Your task to perform on an android device: Clear the cart on walmart. Add usb-c to the cart on walmart, then select checkout. Image 0: 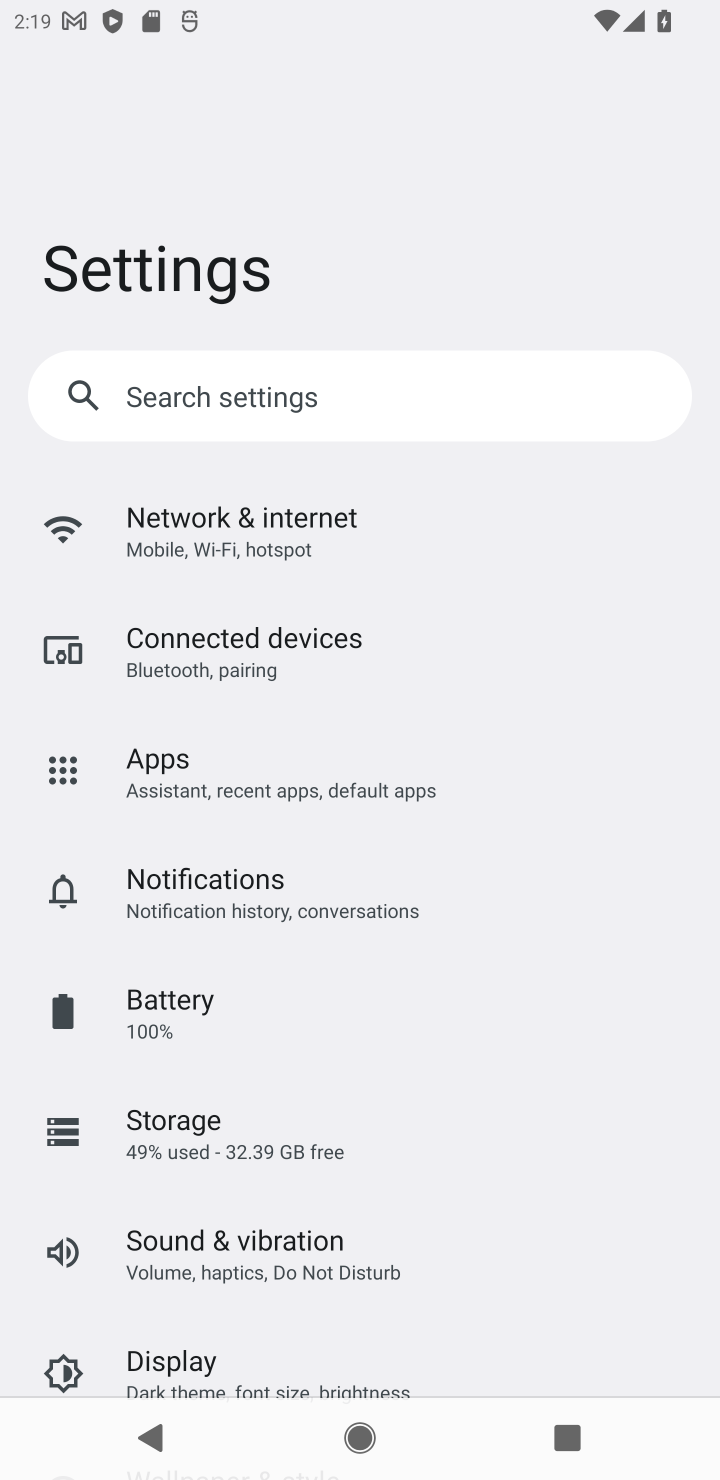
Step 0: press home button
Your task to perform on an android device: Clear the cart on walmart. Add usb-c to the cart on walmart, then select checkout. Image 1: 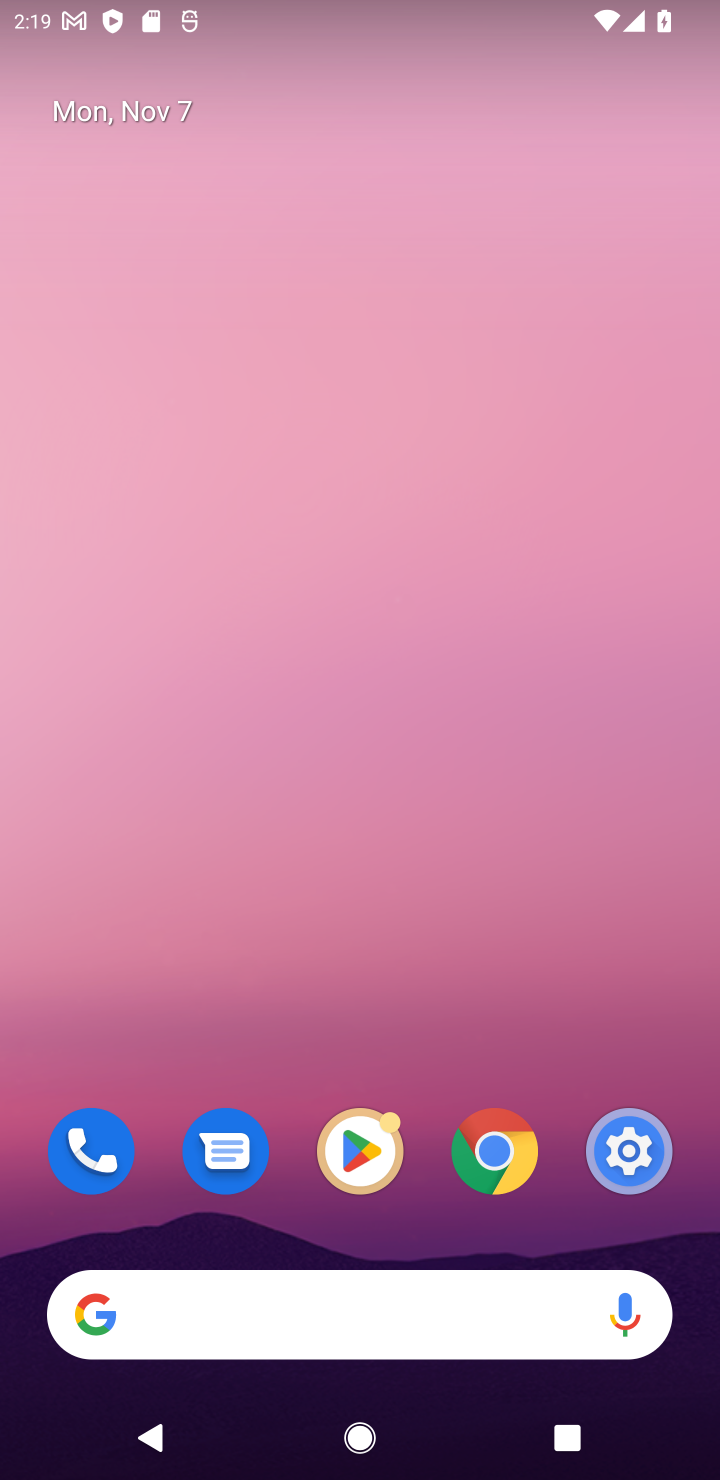
Step 1: click (281, 1317)
Your task to perform on an android device: Clear the cart on walmart. Add usb-c to the cart on walmart, then select checkout. Image 2: 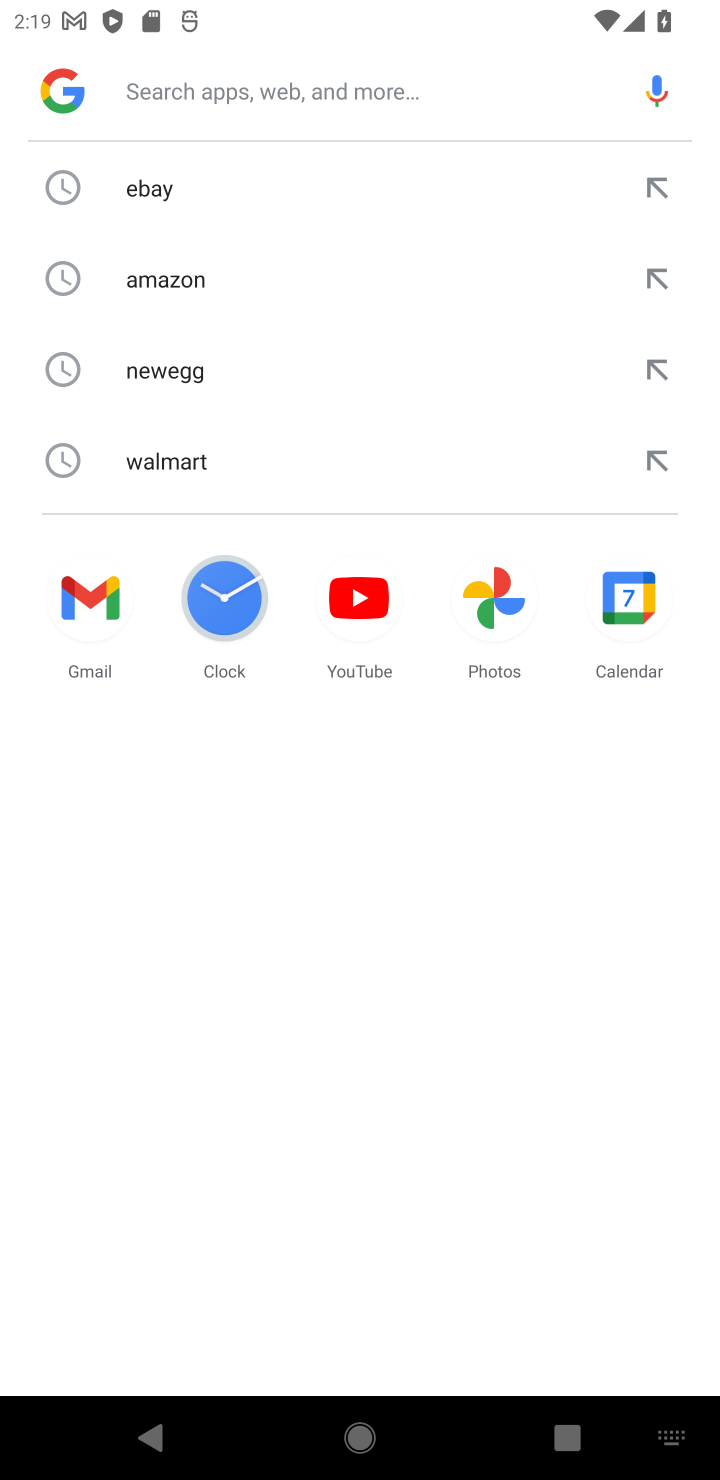
Step 2: click (168, 460)
Your task to perform on an android device: Clear the cart on walmart. Add usb-c to the cart on walmart, then select checkout. Image 3: 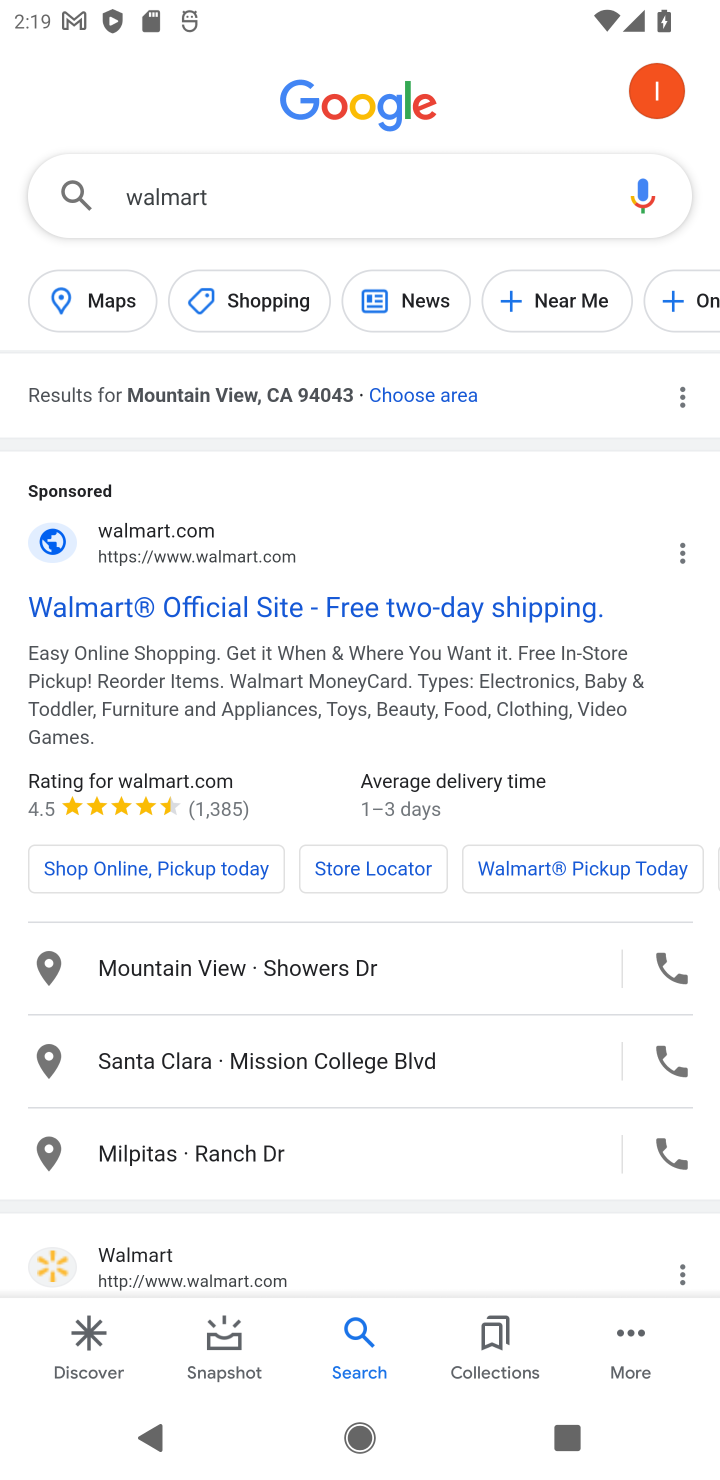
Step 3: drag from (359, 1219) to (361, 779)
Your task to perform on an android device: Clear the cart on walmart. Add usb-c to the cart on walmart, then select checkout. Image 4: 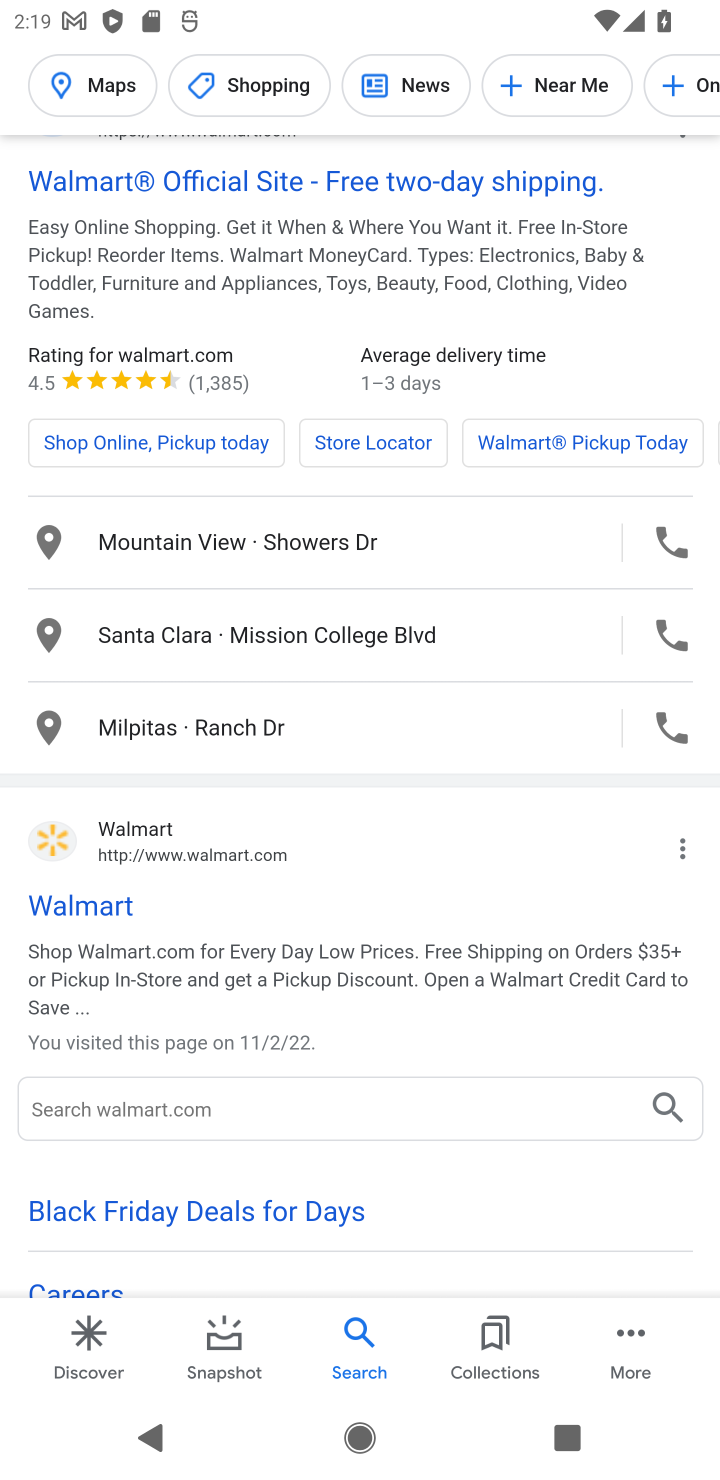
Step 4: click (103, 908)
Your task to perform on an android device: Clear the cart on walmart. Add usb-c to the cart on walmart, then select checkout. Image 5: 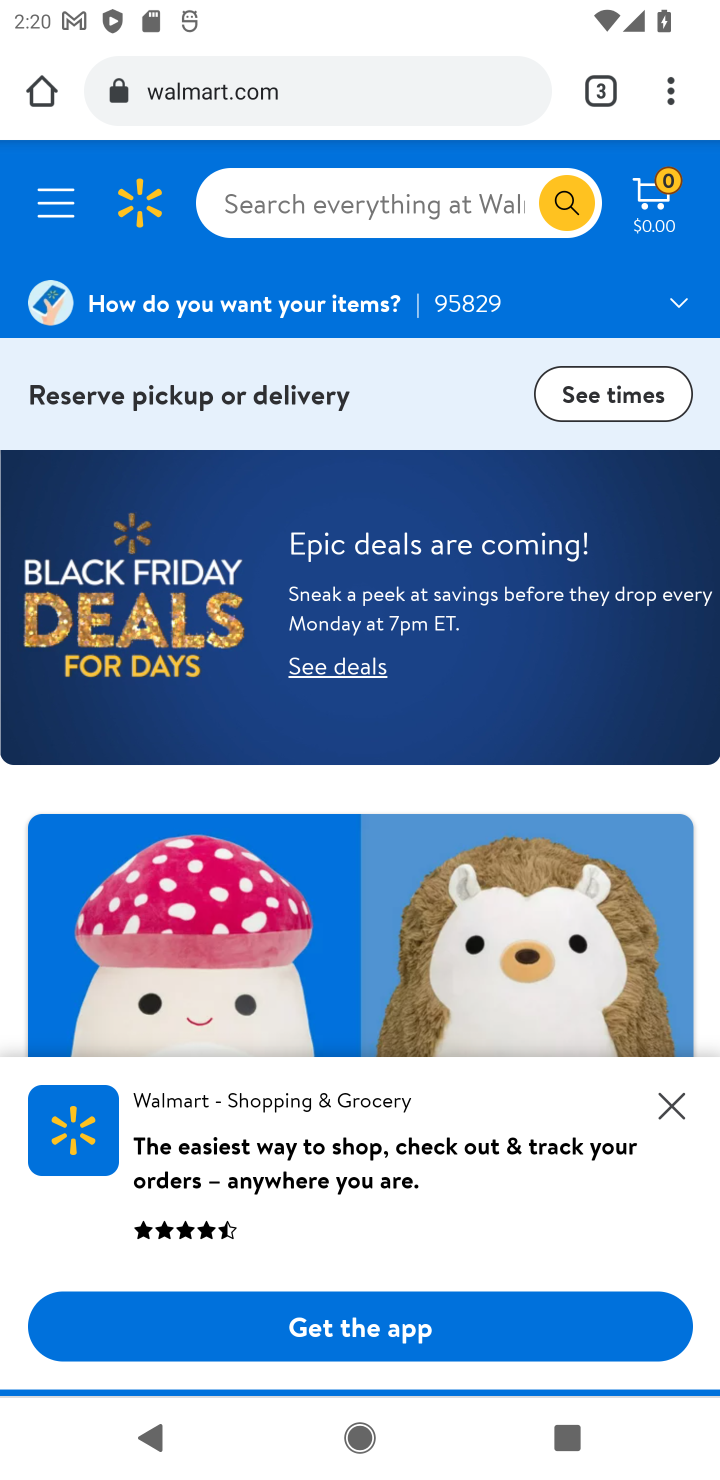
Step 5: click (358, 192)
Your task to perform on an android device: Clear the cart on walmart. Add usb-c to the cart on walmart, then select checkout. Image 6: 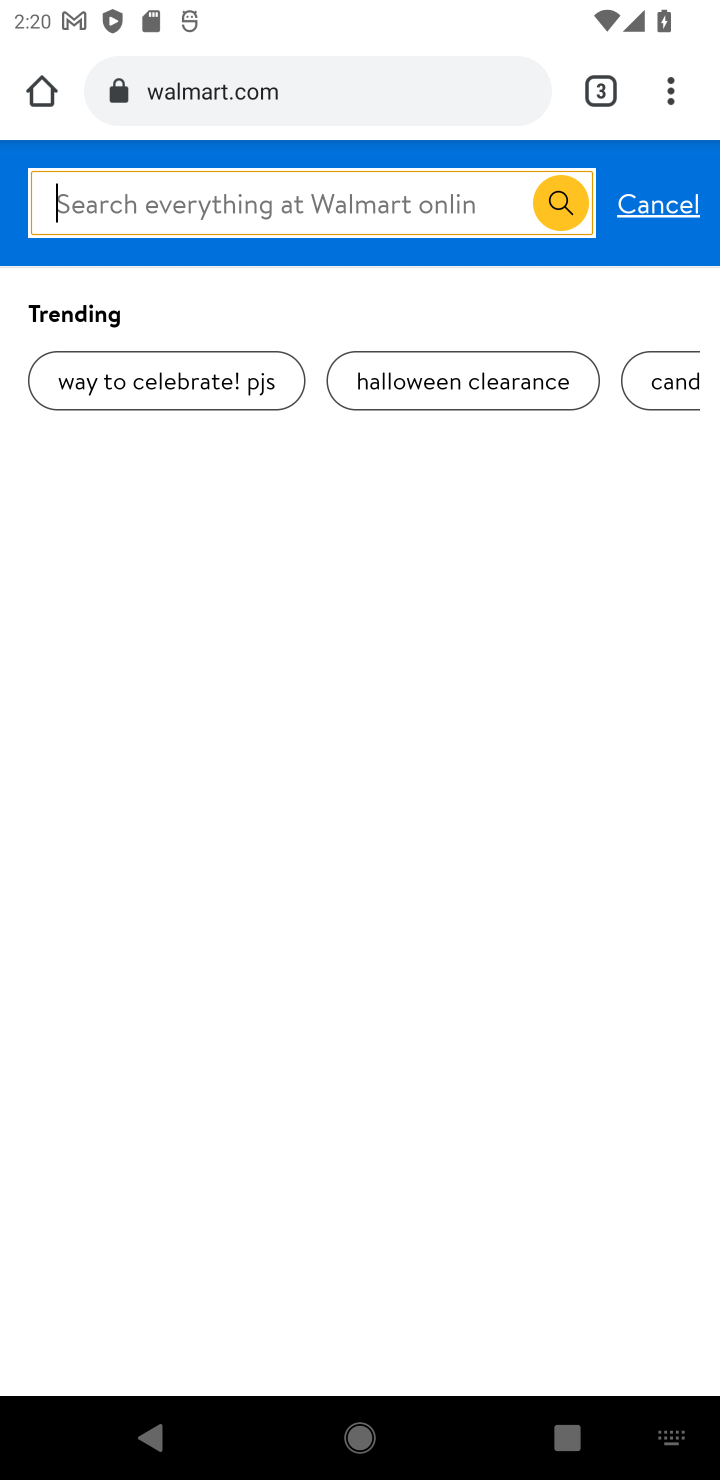
Step 6: type "usb-c "
Your task to perform on an android device: Clear the cart on walmart. Add usb-c to the cart on walmart, then select checkout. Image 7: 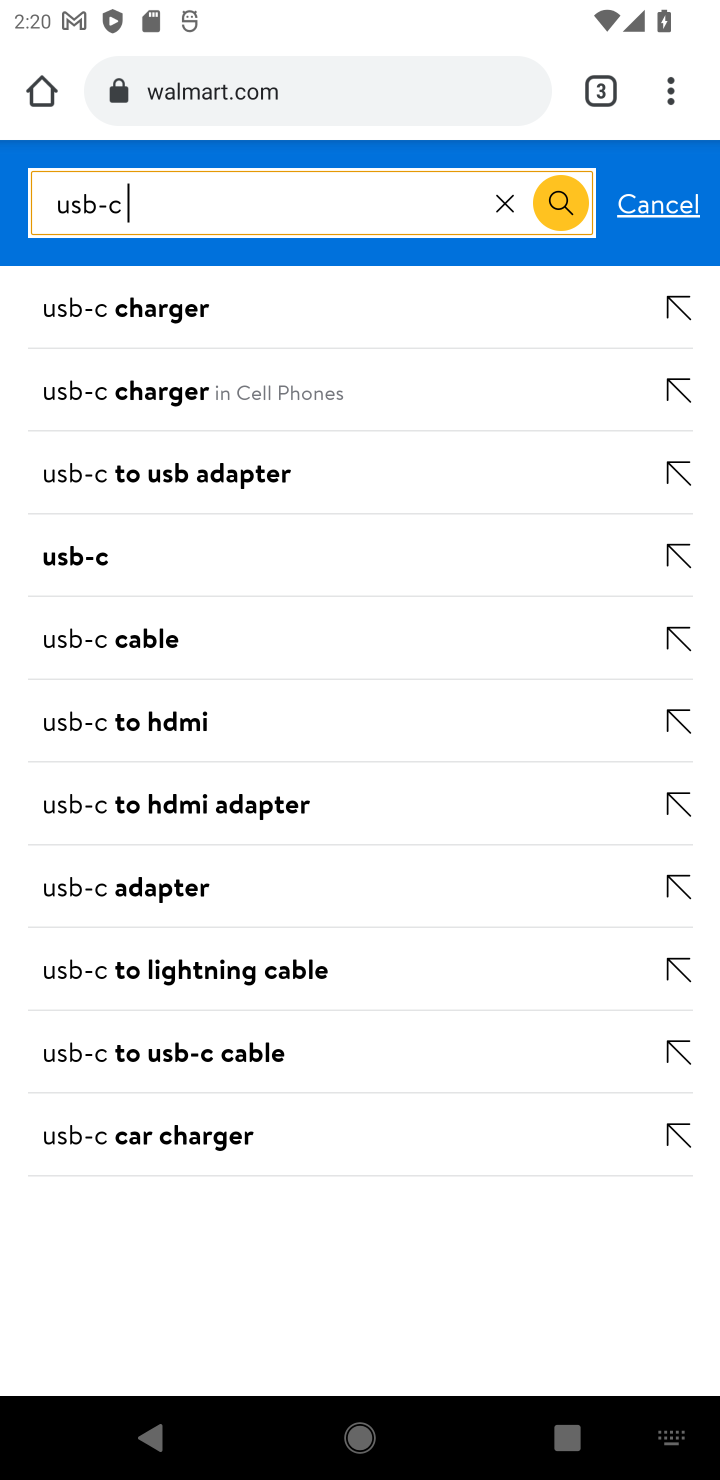
Step 7: click (67, 555)
Your task to perform on an android device: Clear the cart on walmart. Add usb-c to the cart on walmart, then select checkout. Image 8: 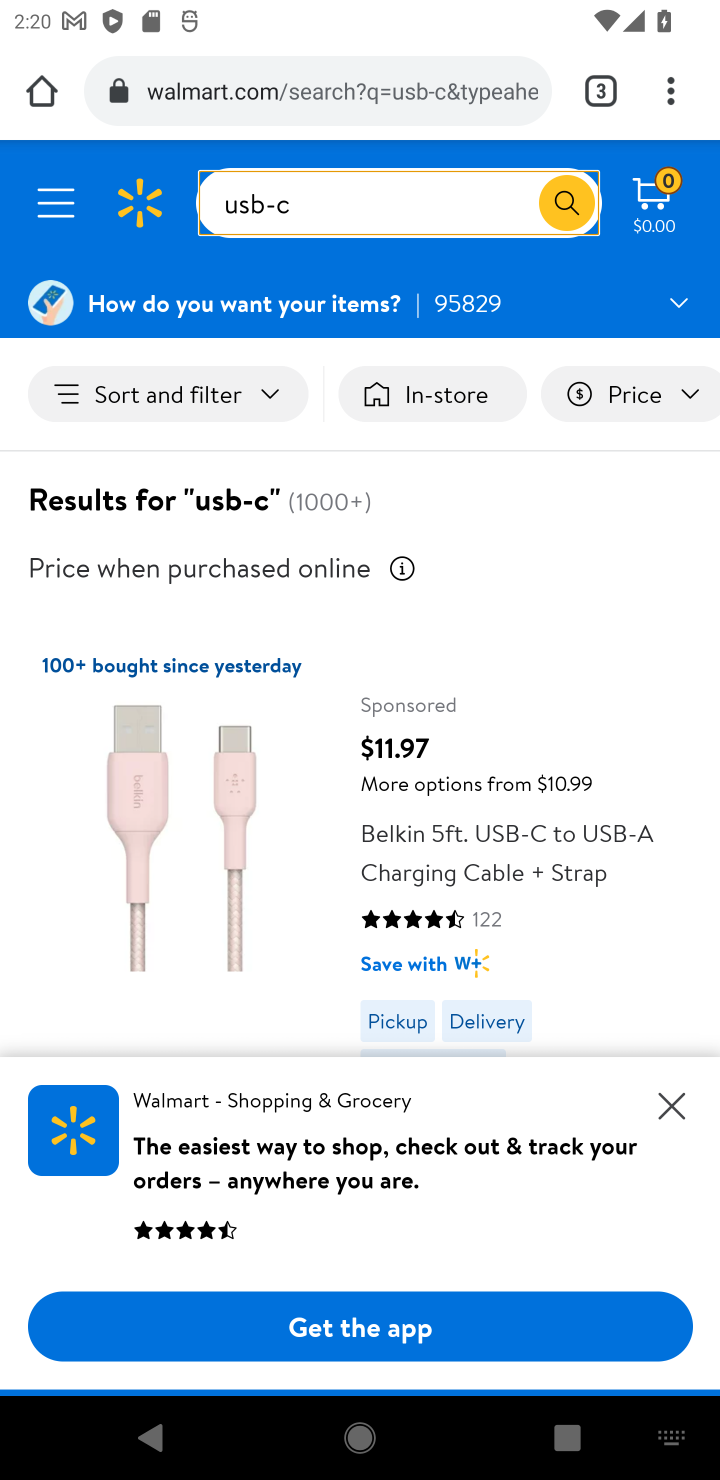
Step 8: click (669, 1109)
Your task to perform on an android device: Clear the cart on walmart. Add usb-c to the cart on walmart, then select checkout. Image 9: 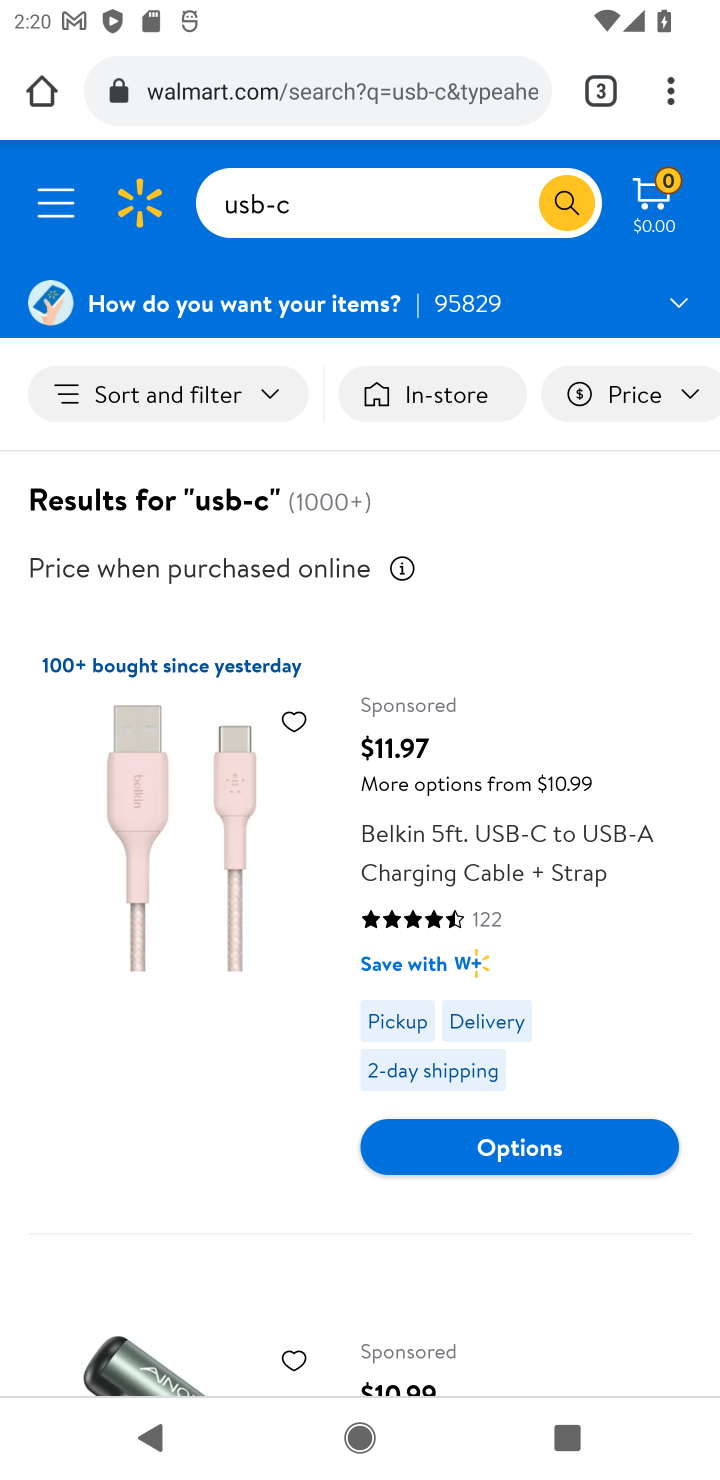
Step 9: click (479, 1148)
Your task to perform on an android device: Clear the cart on walmart. Add usb-c to the cart on walmart, then select checkout. Image 10: 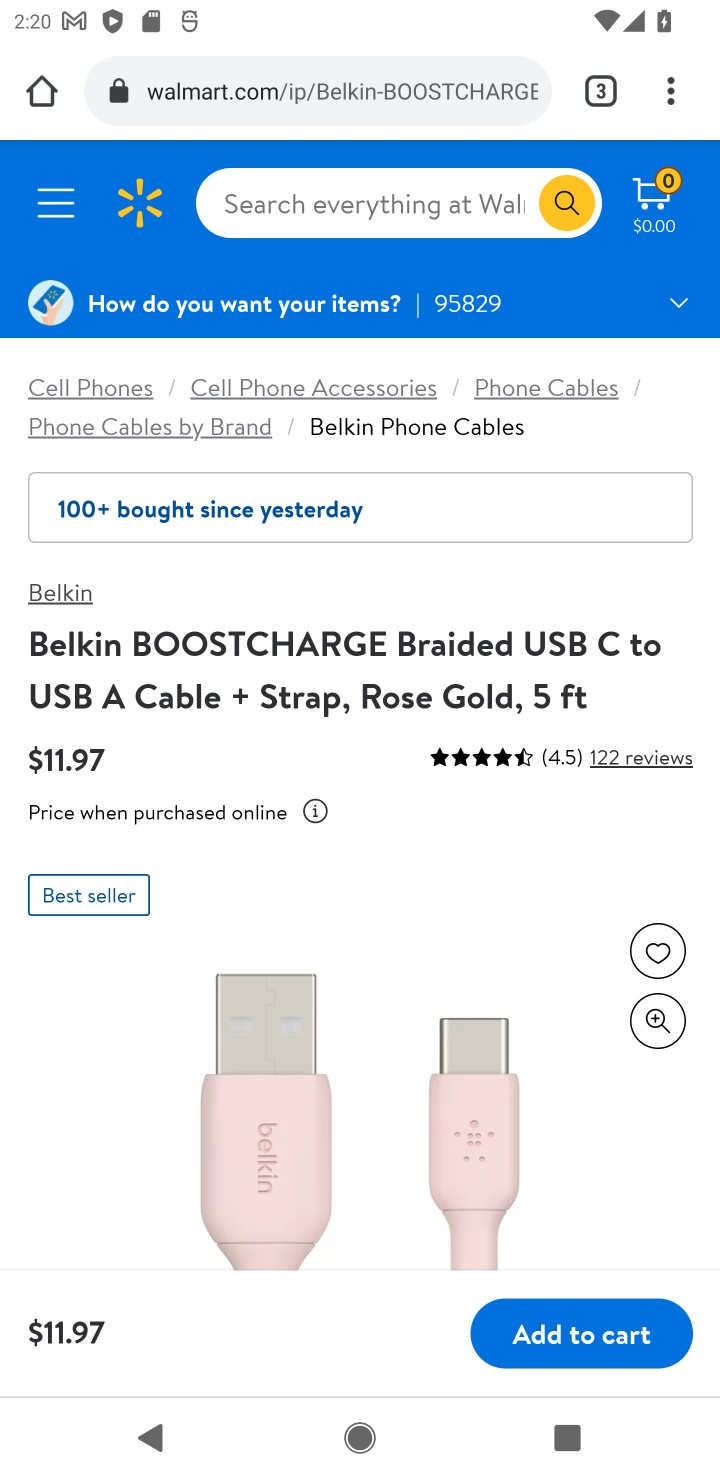
Step 10: click (590, 1335)
Your task to perform on an android device: Clear the cart on walmart. Add usb-c to the cart on walmart, then select checkout. Image 11: 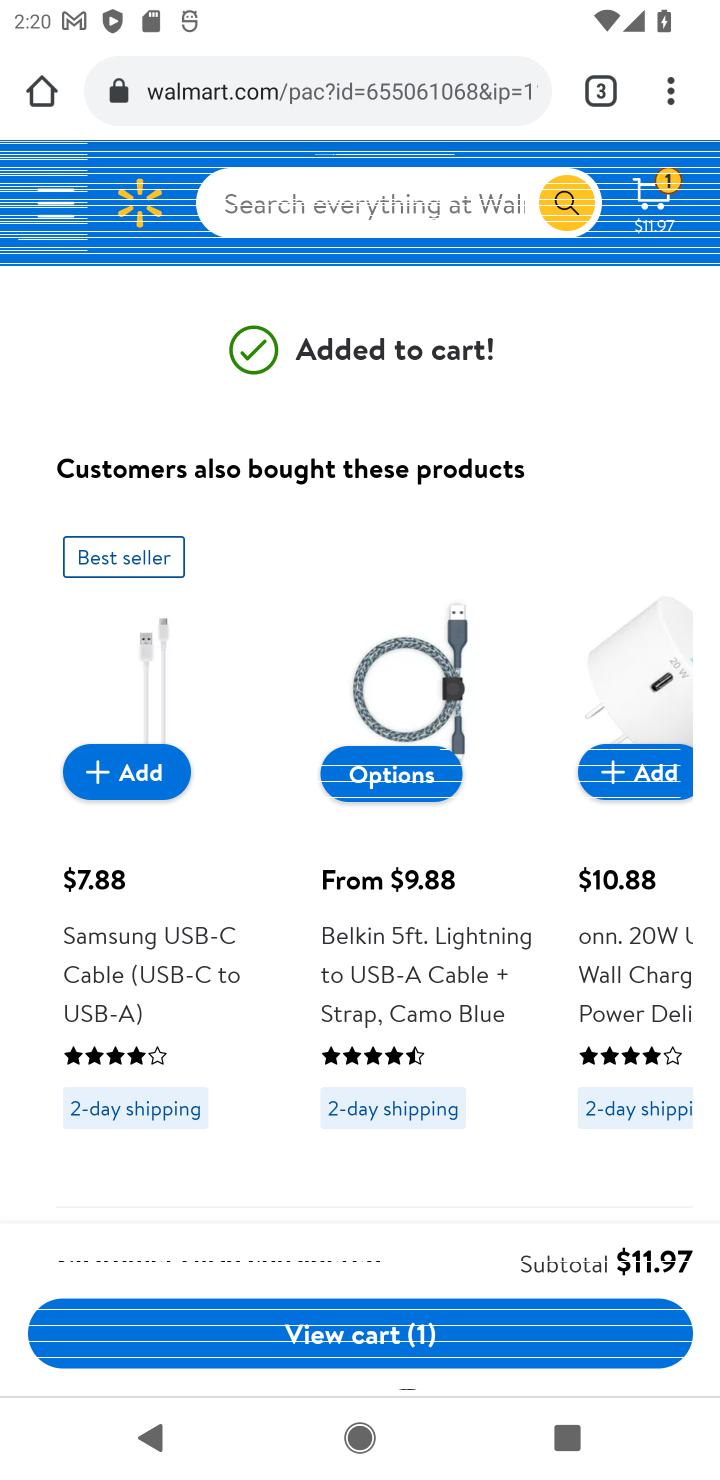
Step 11: click (344, 1336)
Your task to perform on an android device: Clear the cart on walmart. Add usb-c to the cart on walmart, then select checkout. Image 12: 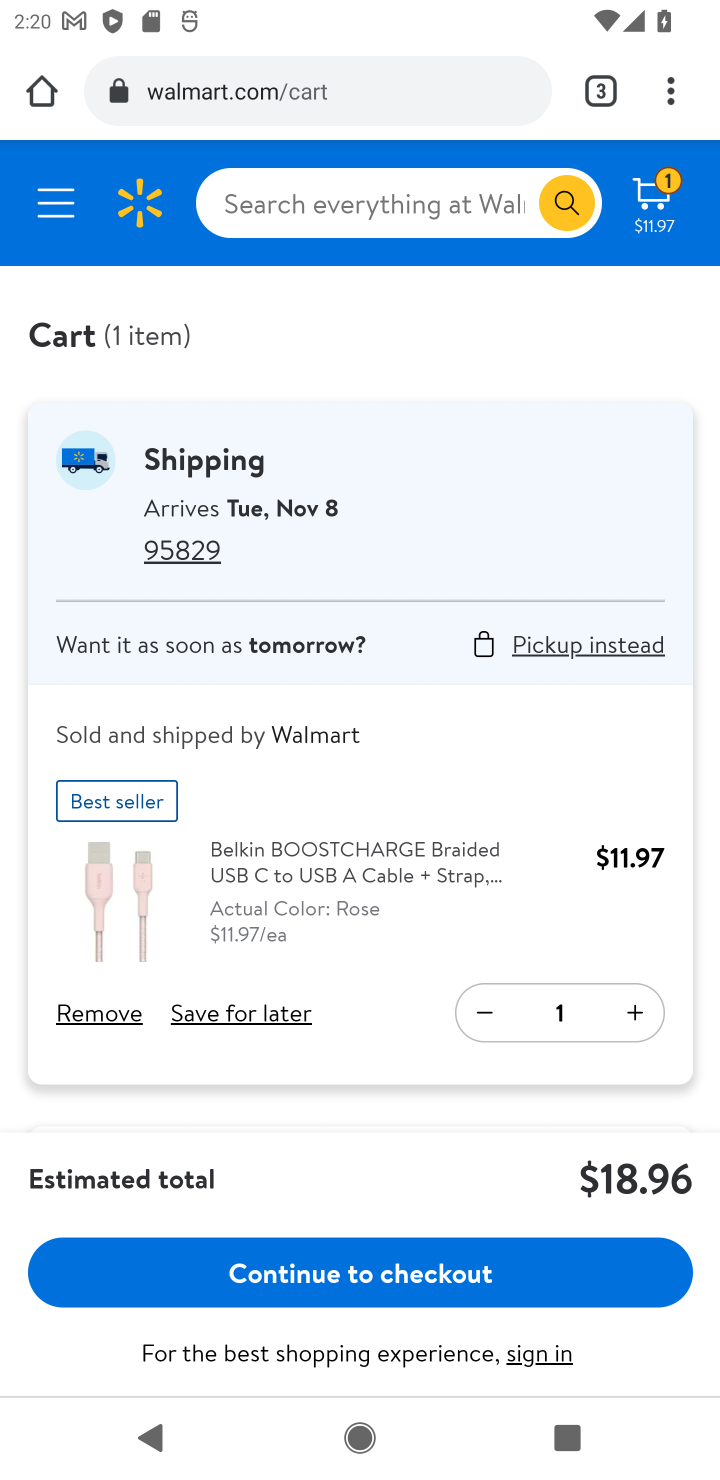
Step 12: click (371, 1270)
Your task to perform on an android device: Clear the cart on walmart. Add usb-c to the cart on walmart, then select checkout. Image 13: 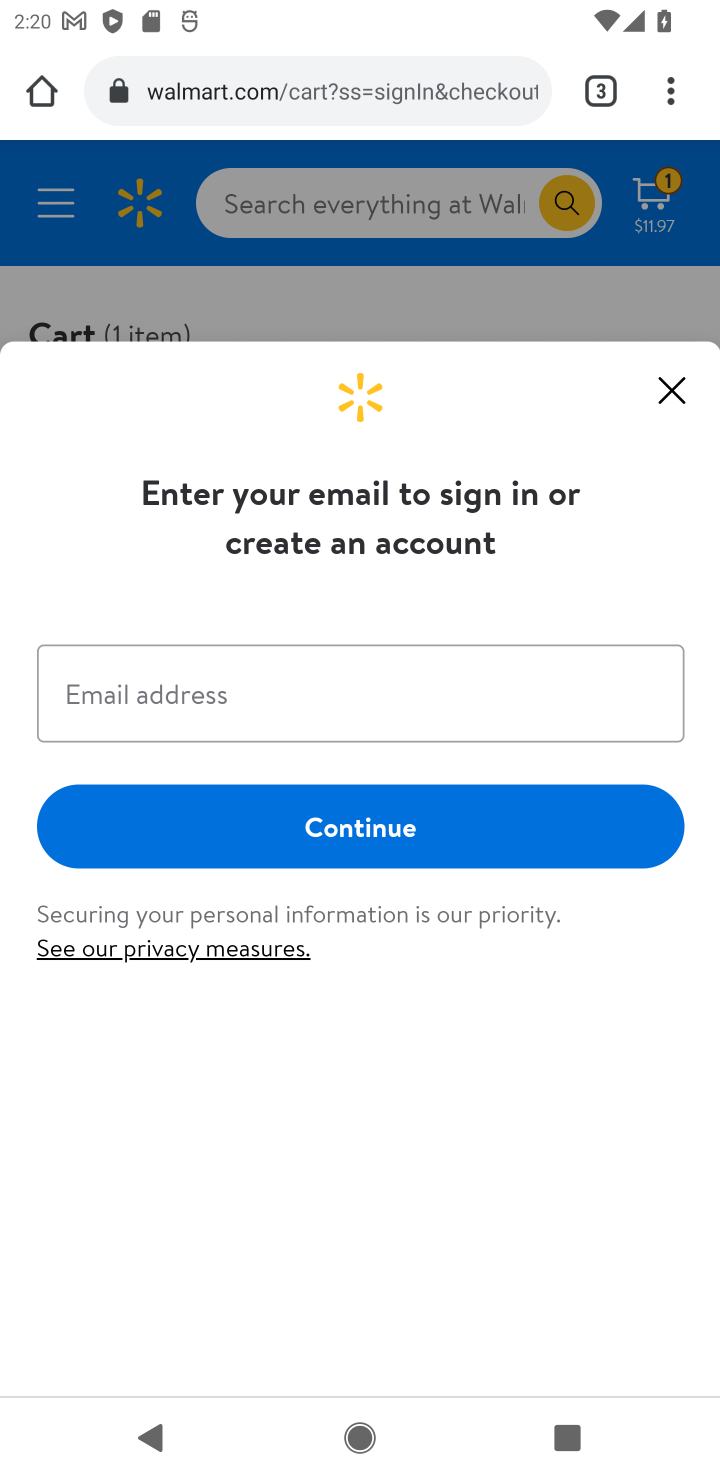
Step 13: task complete